Your task to perform on an android device: Show me recent news Image 0: 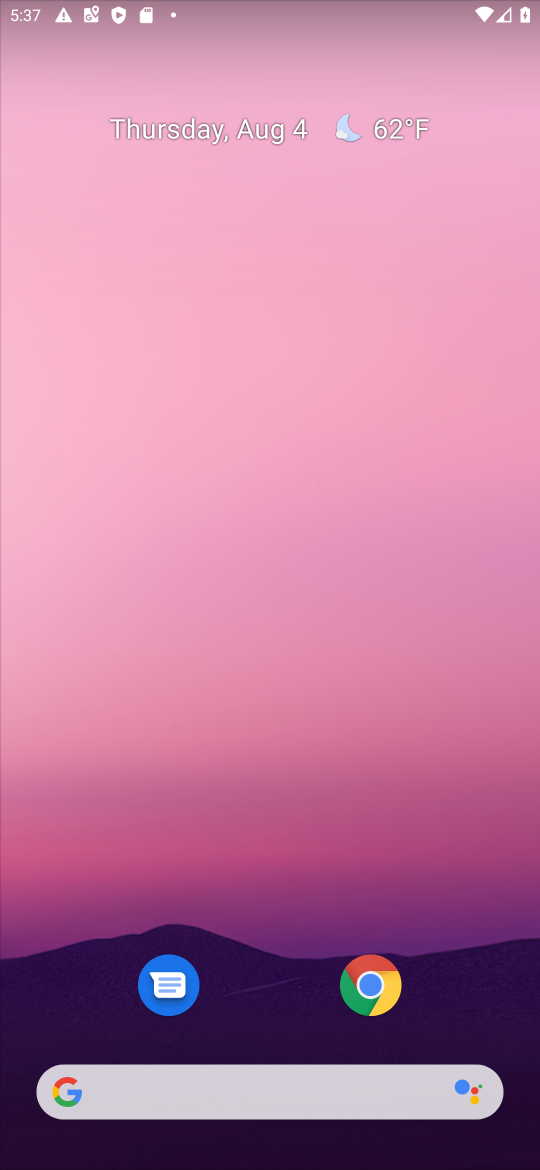
Step 0: drag from (233, 1079) to (391, 118)
Your task to perform on an android device: Show me recent news Image 1: 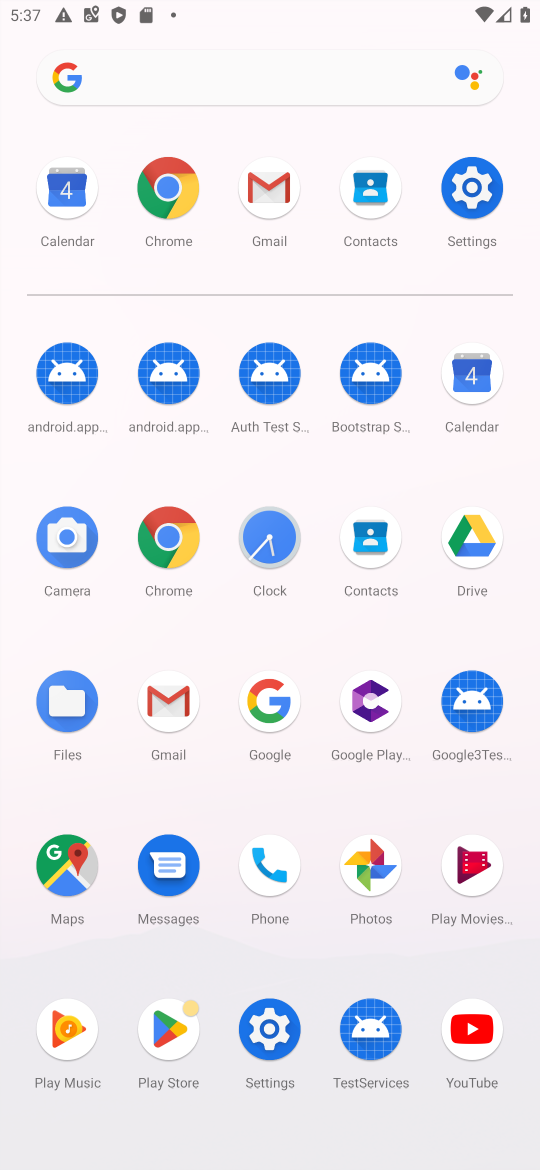
Step 1: click (167, 198)
Your task to perform on an android device: Show me recent news Image 2: 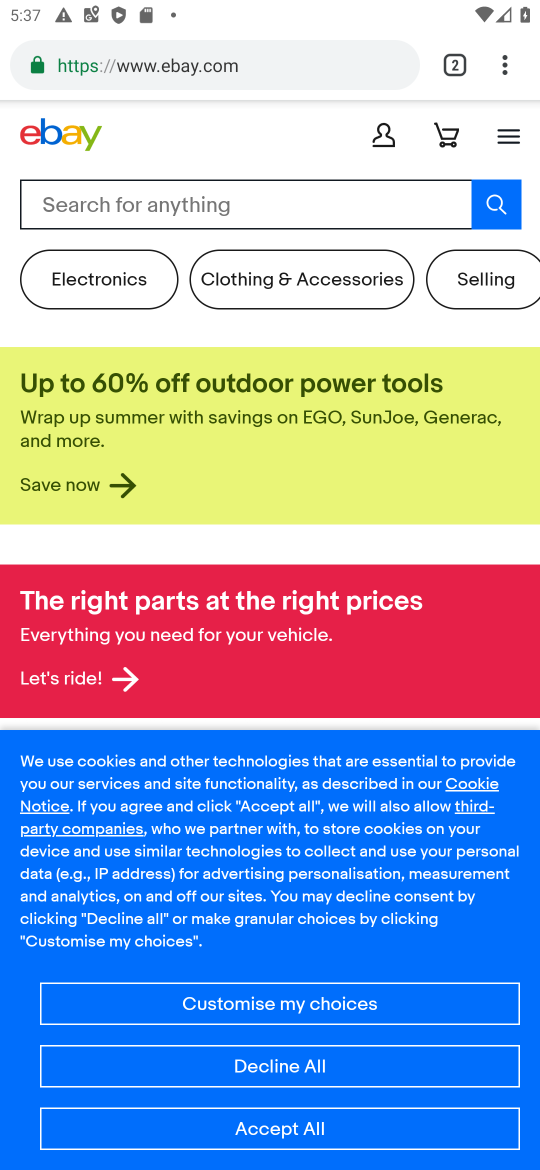
Step 2: click (263, 69)
Your task to perform on an android device: Show me recent news Image 3: 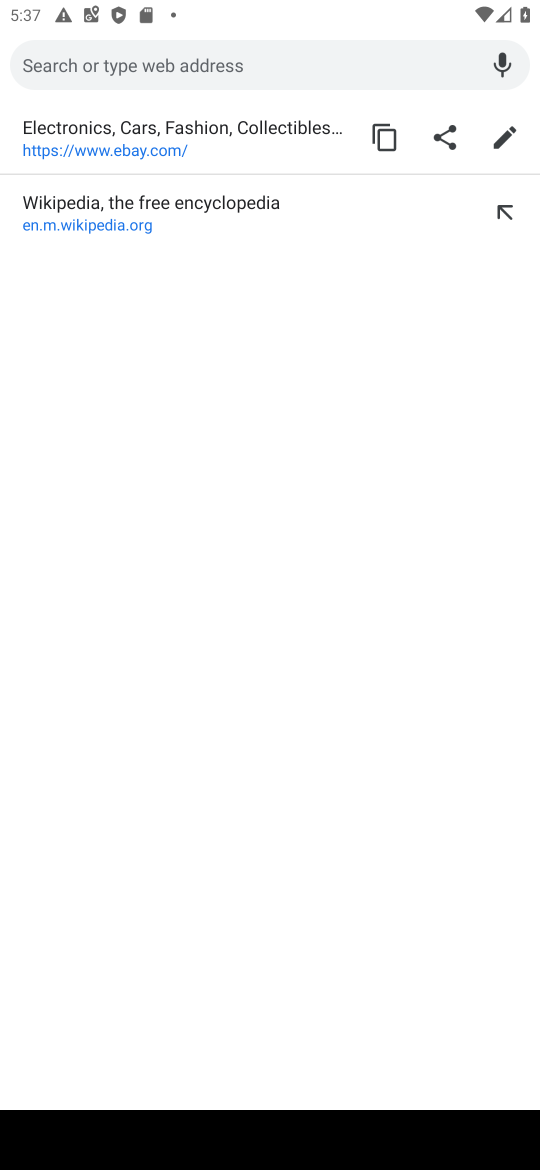
Step 3: type "recent news"
Your task to perform on an android device: Show me recent news Image 4: 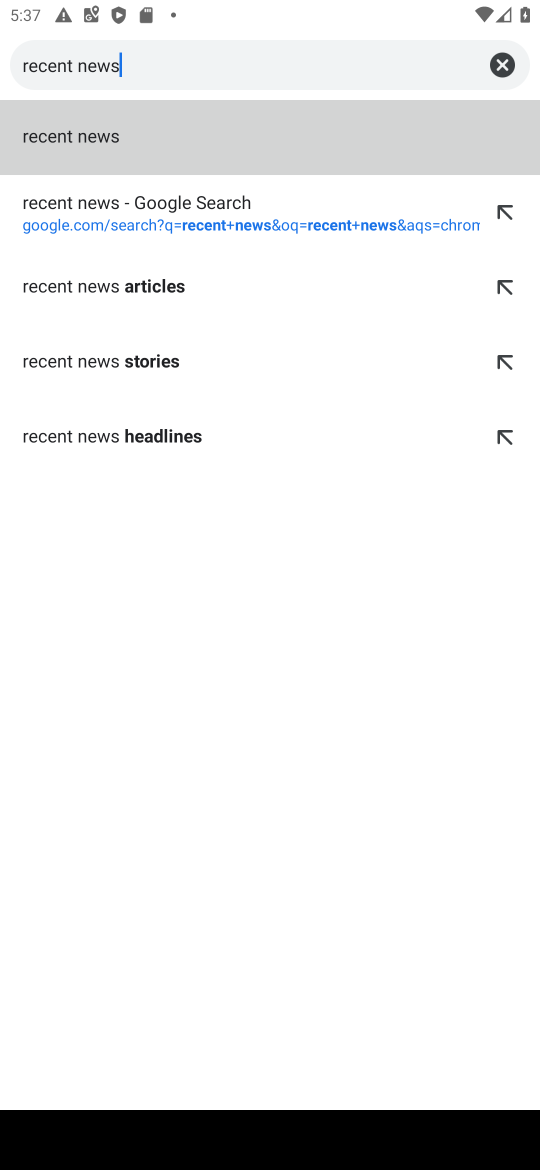
Step 4: click (267, 137)
Your task to perform on an android device: Show me recent news Image 5: 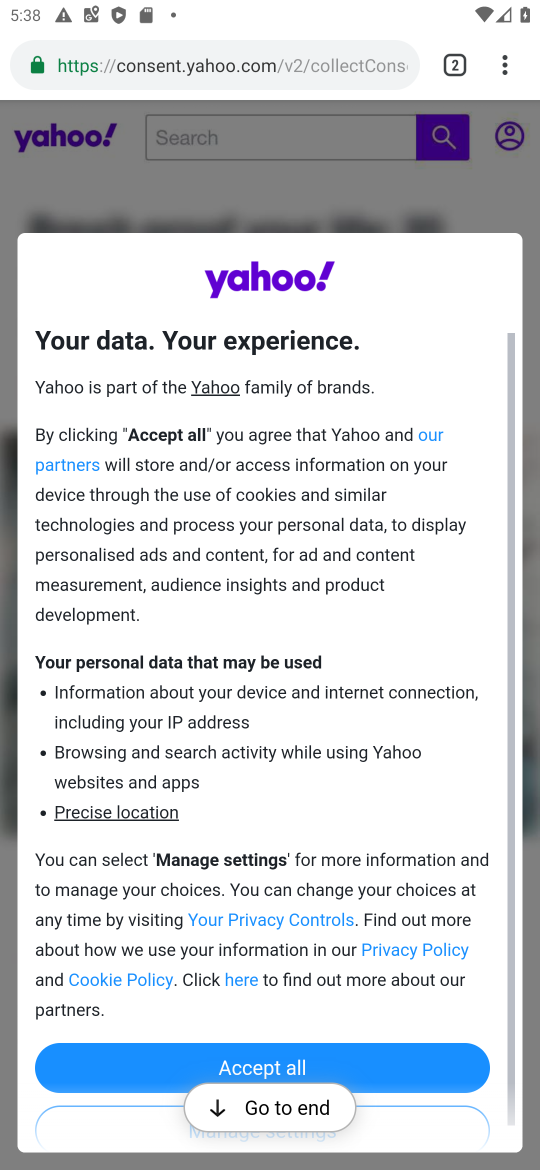
Step 5: click (222, 66)
Your task to perform on an android device: Show me recent news Image 6: 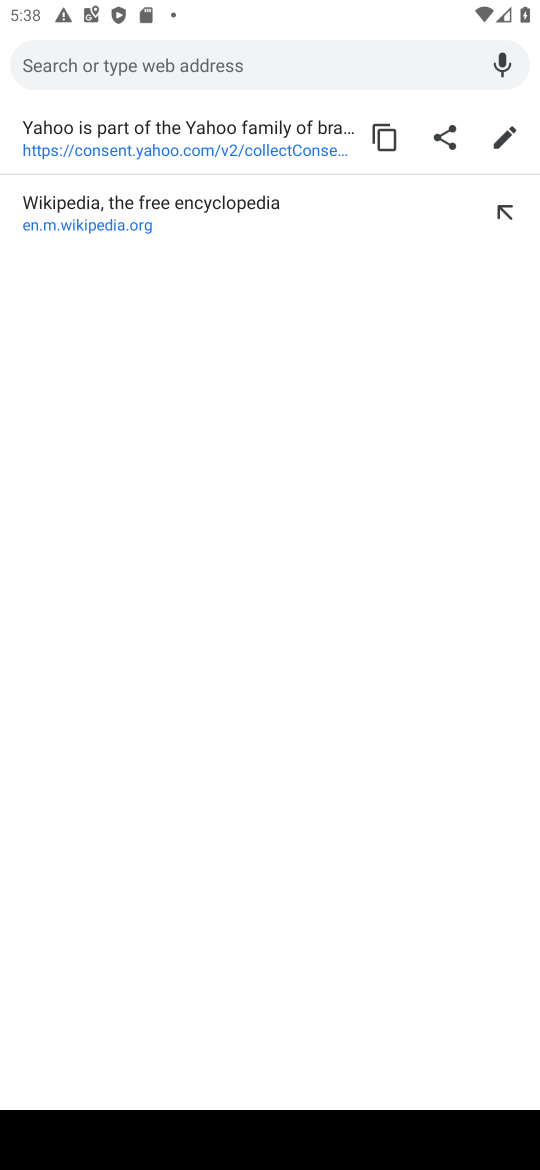
Step 6: type "recent news"
Your task to perform on an android device: Show me recent news Image 7: 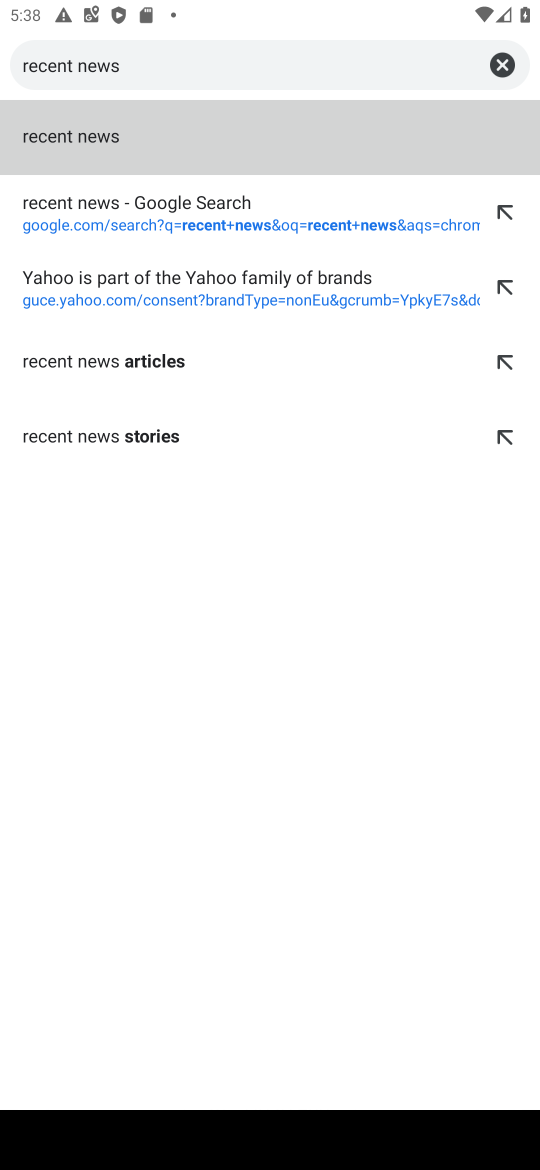
Step 7: click (224, 160)
Your task to perform on an android device: Show me recent news Image 8: 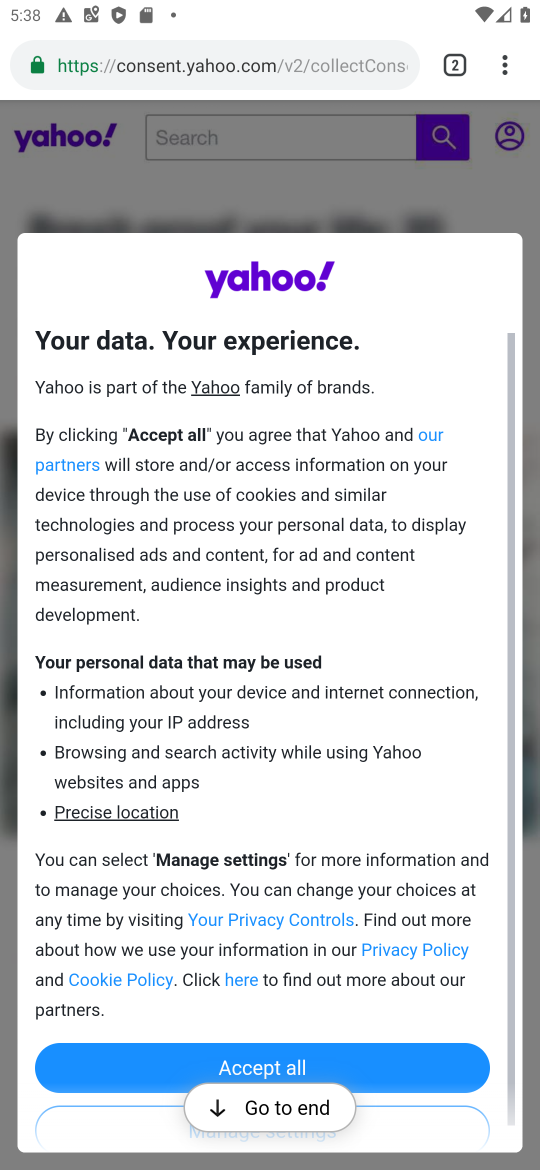
Step 8: click (265, 55)
Your task to perform on an android device: Show me recent news Image 9: 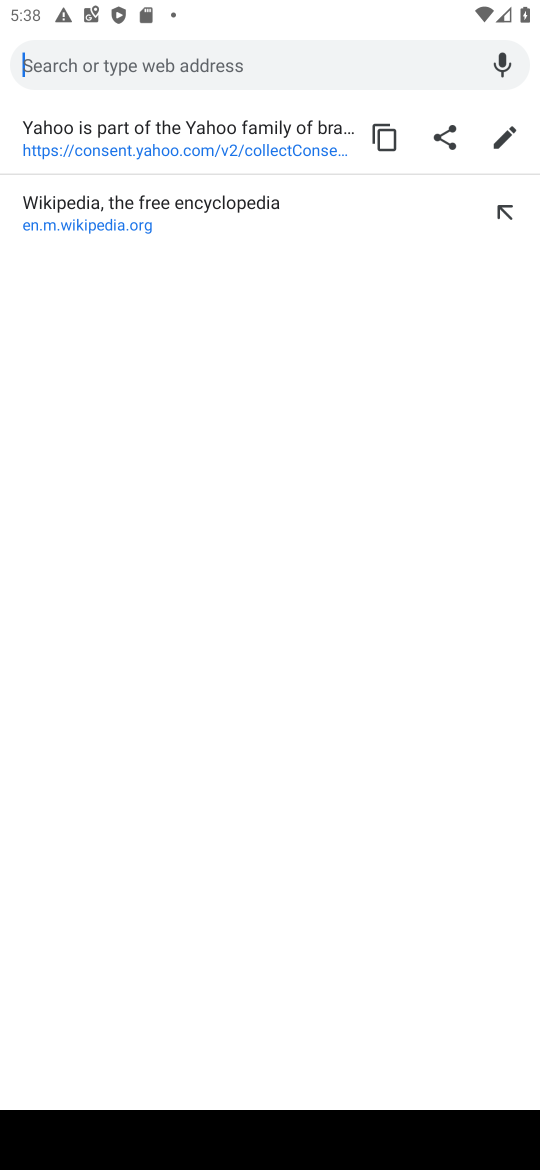
Step 9: type "recent news"
Your task to perform on an android device: Show me recent news Image 10: 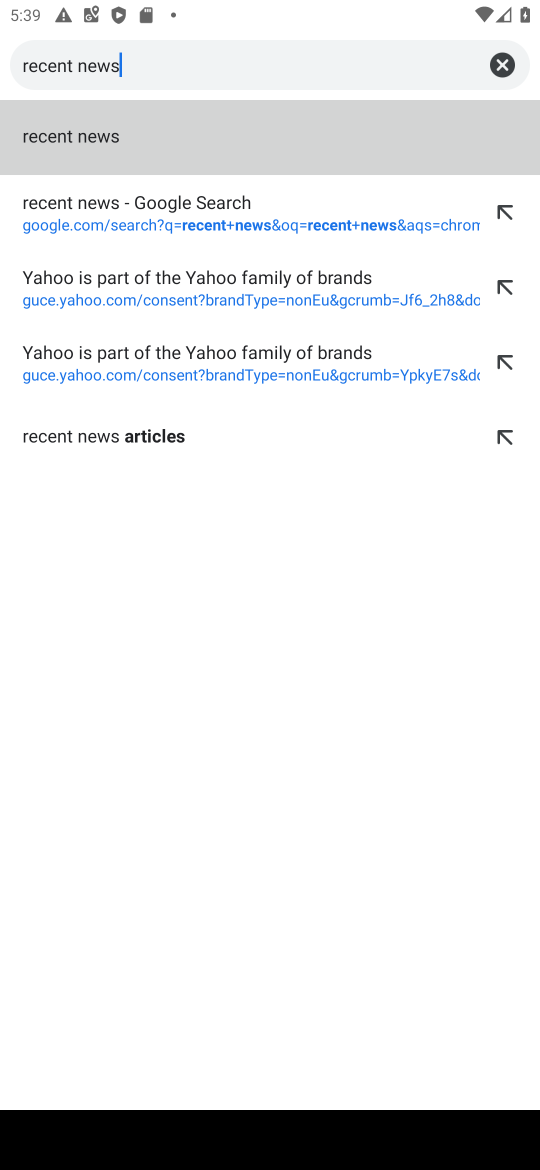
Step 10: click (28, 134)
Your task to perform on an android device: Show me recent news Image 11: 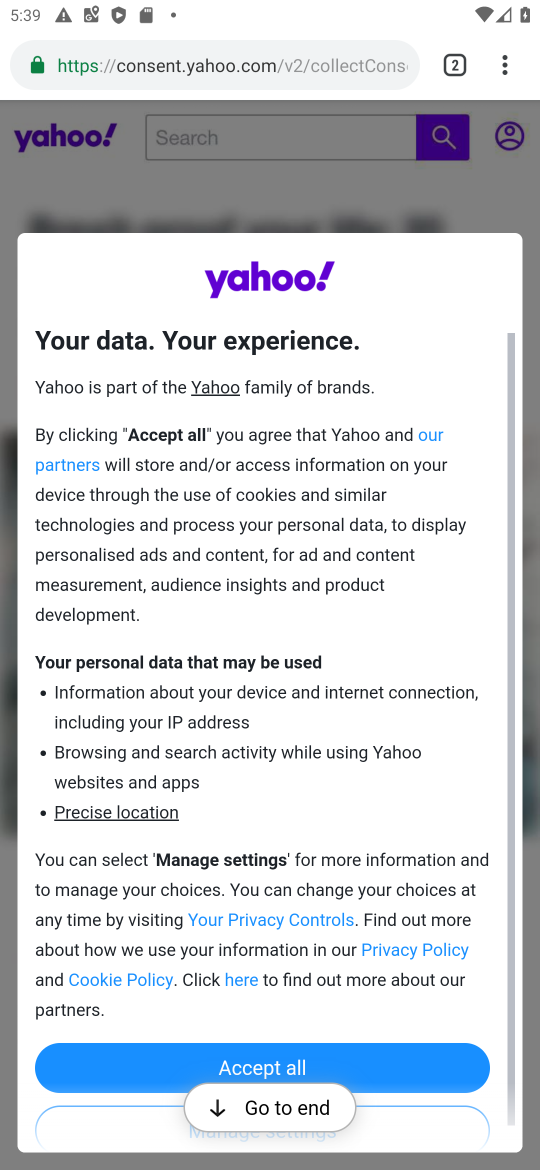
Step 11: click (456, 1046)
Your task to perform on an android device: Show me recent news Image 12: 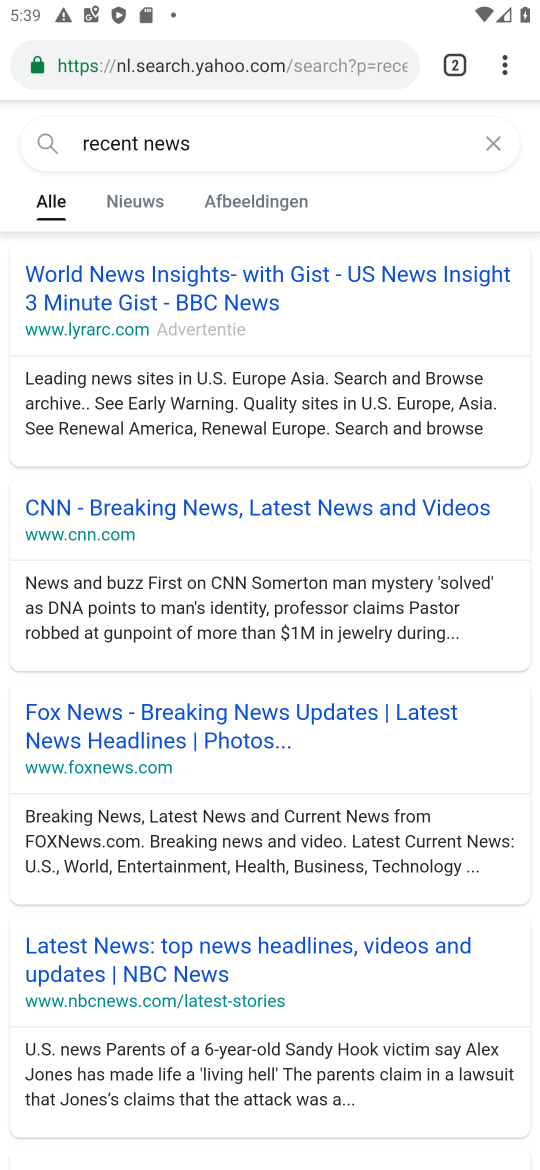
Step 12: task complete